Your task to perform on an android device: Open Youtube and go to "Your channel" Image 0: 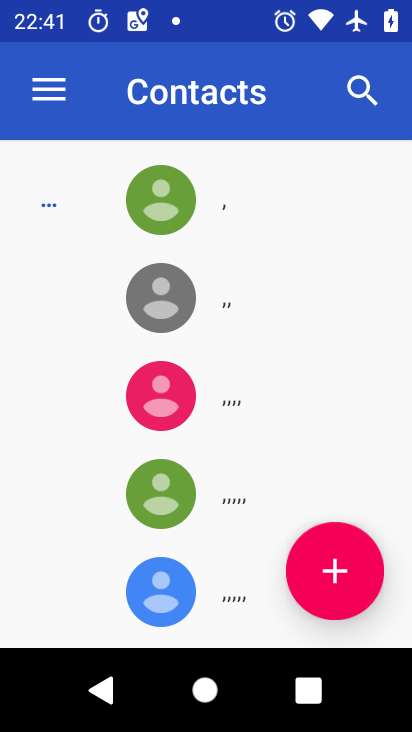
Step 0: press home button
Your task to perform on an android device: Open Youtube and go to "Your channel" Image 1: 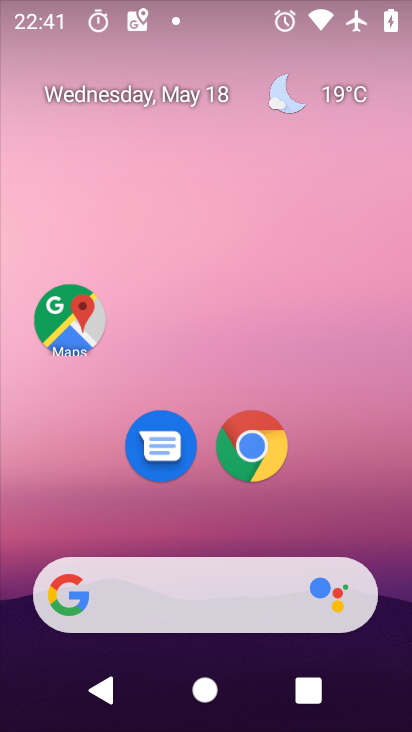
Step 1: drag from (201, 584) to (347, 65)
Your task to perform on an android device: Open Youtube and go to "Your channel" Image 2: 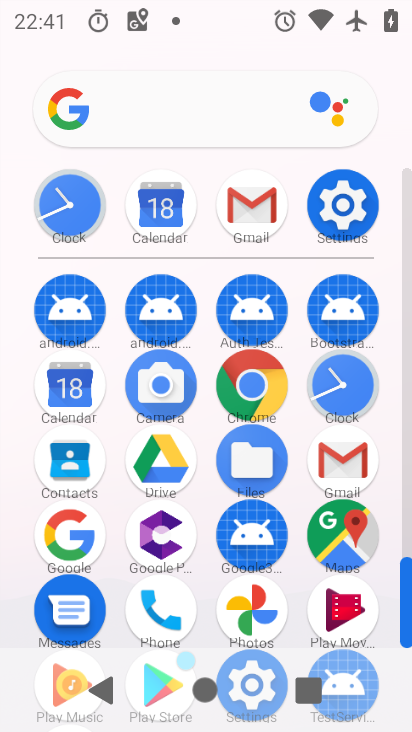
Step 2: drag from (217, 573) to (385, 70)
Your task to perform on an android device: Open Youtube and go to "Your channel" Image 3: 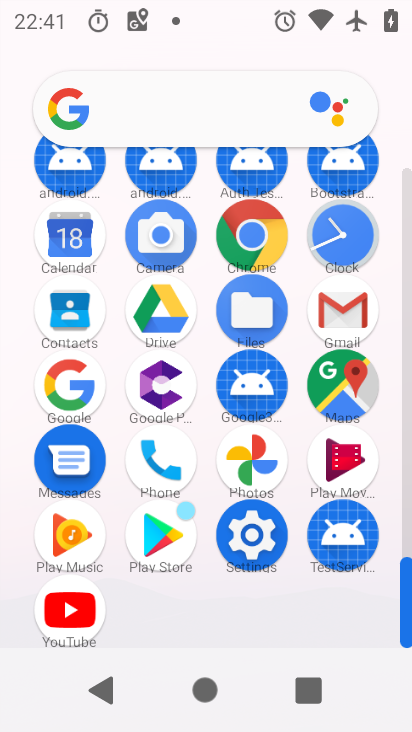
Step 3: click (69, 584)
Your task to perform on an android device: Open Youtube and go to "Your channel" Image 4: 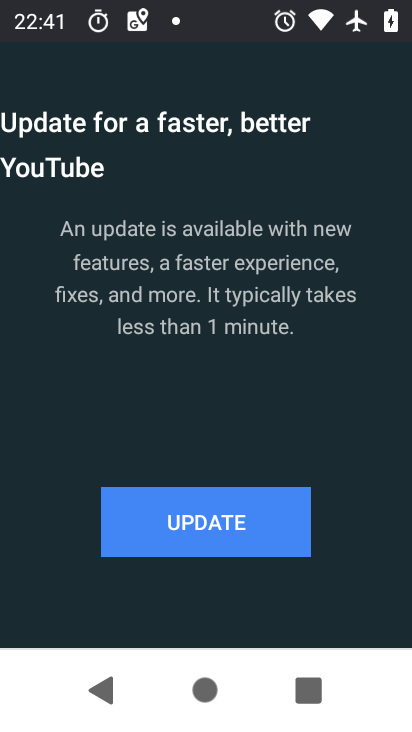
Step 4: click (239, 527)
Your task to perform on an android device: Open Youtube and go to "Your channel" Image 5: 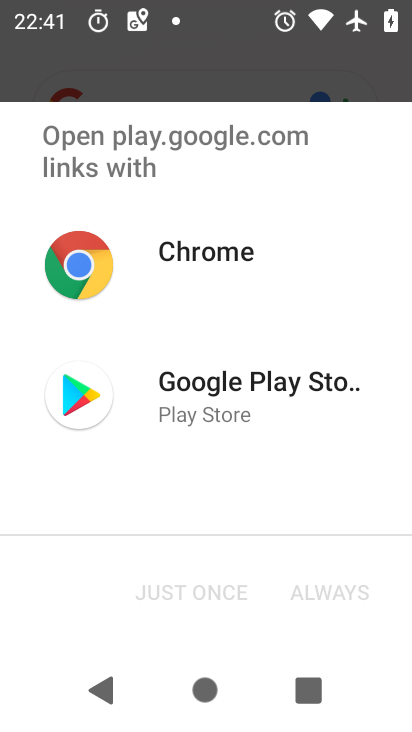
Step 5: click (219, 394)
Your task to perform on an android device: Open Youtube and go to "Your channel" Image 6: 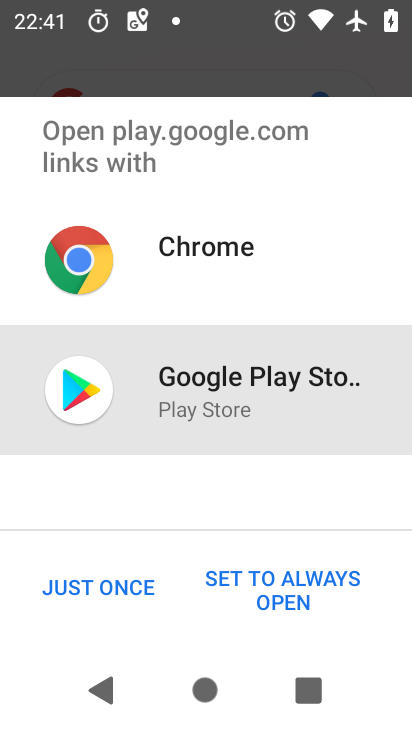
Step 6: click (119, 587)
Your task to perform on an android device: Open Youtube and go to "Your channel" Image 7: 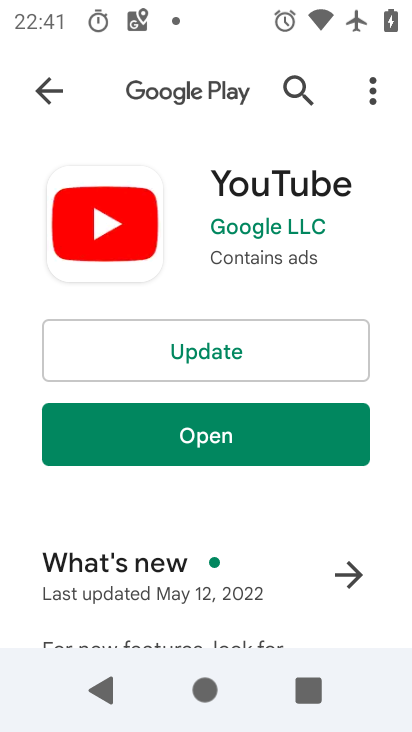
Step 7: click (230, 358)
Your task to perform on an android device: Open Youtube and go to "Your channel" Image 8: 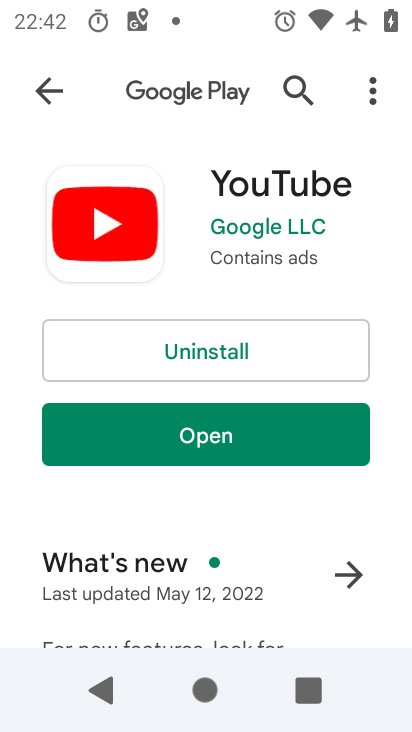
Step 8: click (219, 441)
Your task to perform on an android device: Open Youtube and go to "Your channel" Image 9: 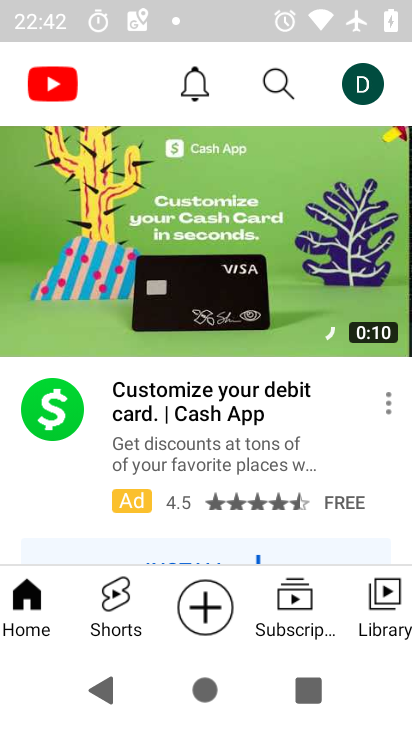
Step 9: click (351, 83)
Your task to perform on an android device: Open Youtube and go to "Your channel" Image 10: 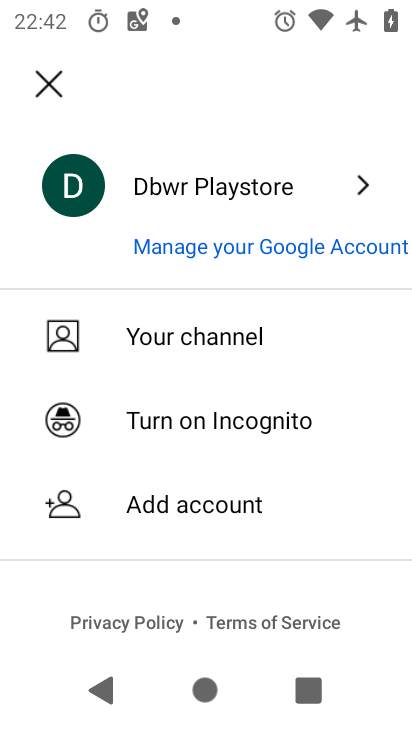
Step 10: click (213, 328)
Your task to perform on an android device: Open Youtube and go to "Your channel" Image 11: 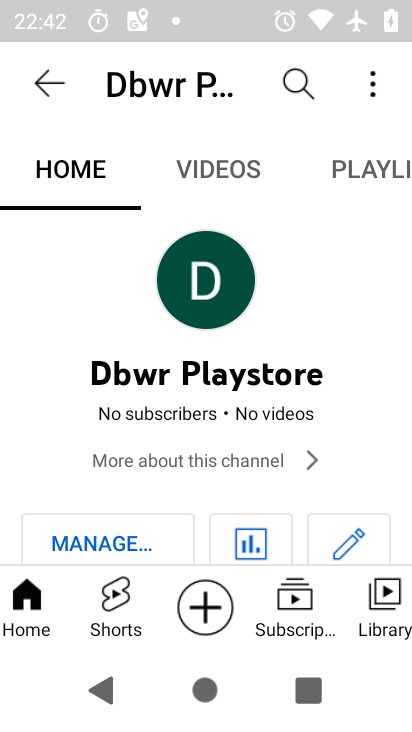
Step 11: task complete